Your task to perform on an android device: turn off airplane mode Image 0: 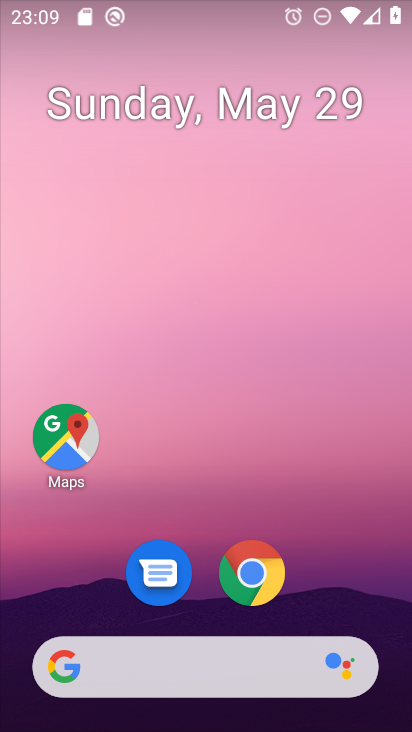
Step 0: drag from (230, 473) to (264, 0)
Your task to perform on an android device: turn off airplane mode Image 1: 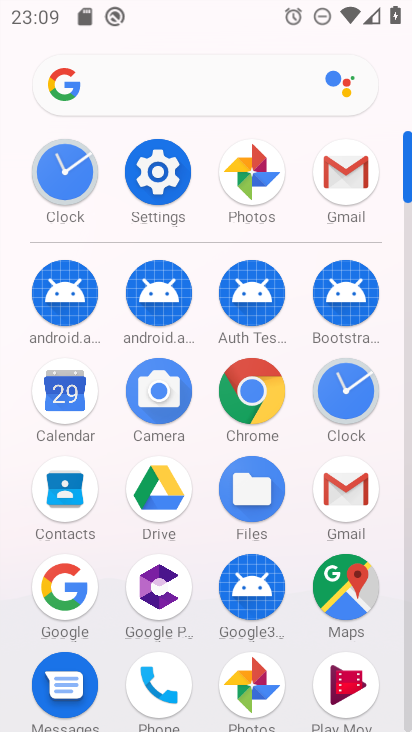
Step 1: click (163, 160)
Your task to perform on an android device: turn off airplane mode Image 2: 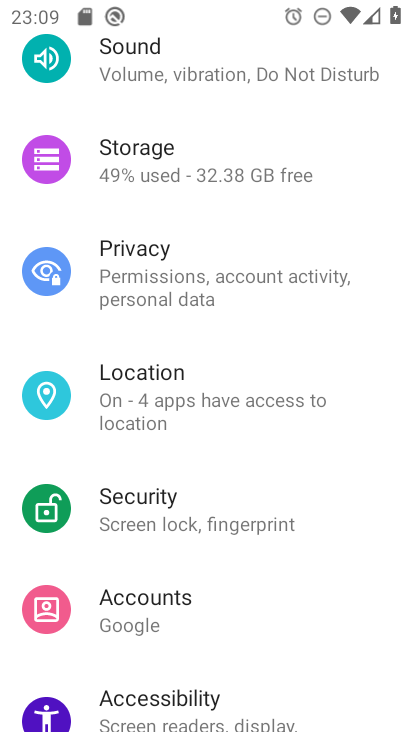
Step 2: drag from (231, 183) to (225, 703)
Your task to perform on an android device: turn off airplane mode Image 3: 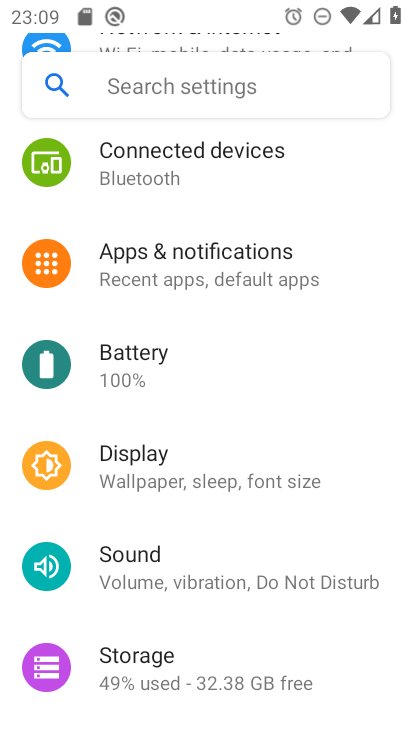
Step 3: drag from (234, 382) to (237, 660)
Your task to perform on an android device: turn off airplane mode Image 4: 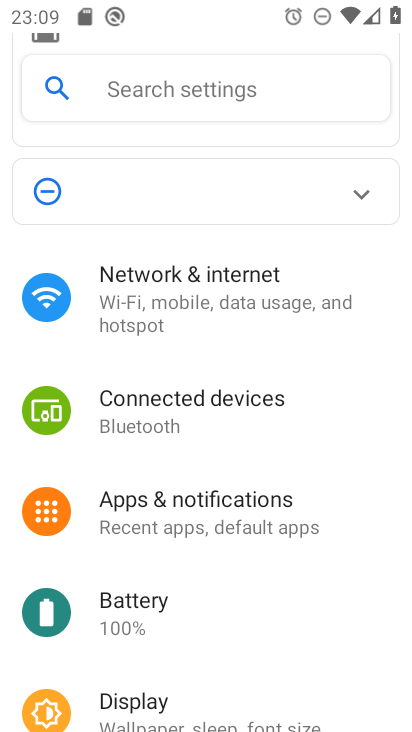
Step 4: click (243, 286)
Your task to perform on an android device: turn off airplane mode Image 5: 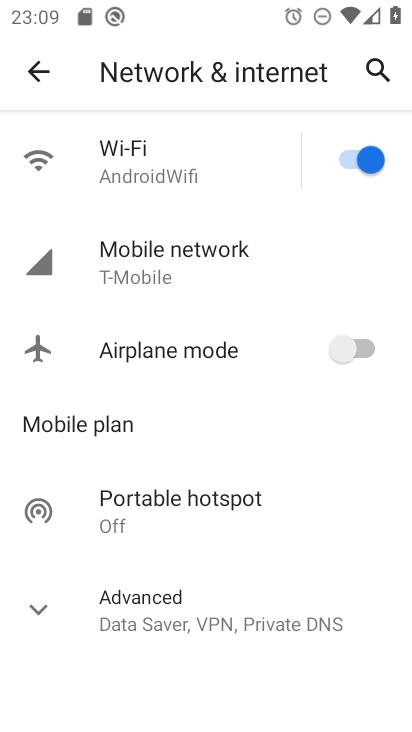
Step 5: task complete